Your task to perform on an android device: Play the last video I watched on Youtube Image 0: 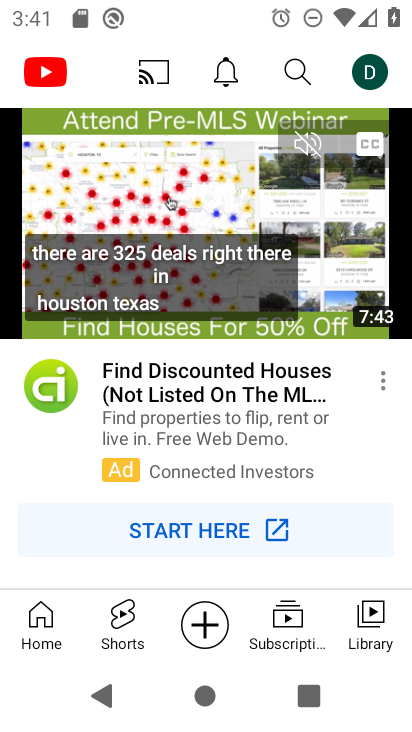
Step 0: press back button
Your task to perform on an android device: Play the last video I watched on Youtube Image 1: 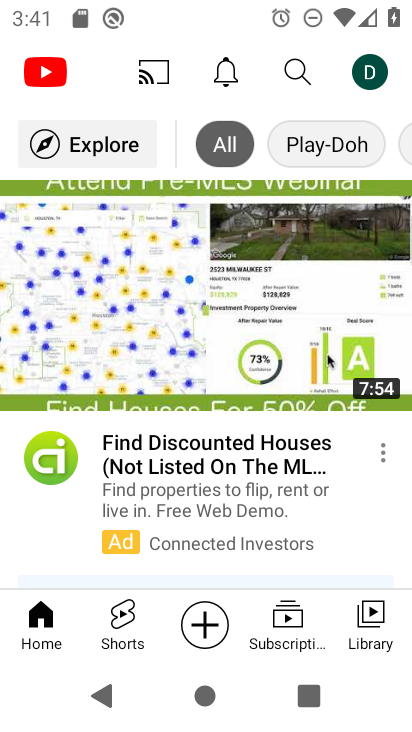
Step 1: press back button
Your task to perform on an android device: Play the last video I watched on Youtube Image 2: 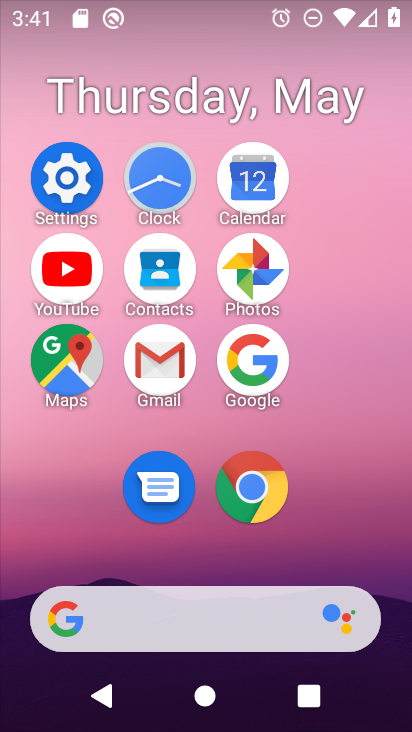
Step 2: click (66, 268)
Your task to perform on an android device: Play the last video I watched on Youtube Image 3: 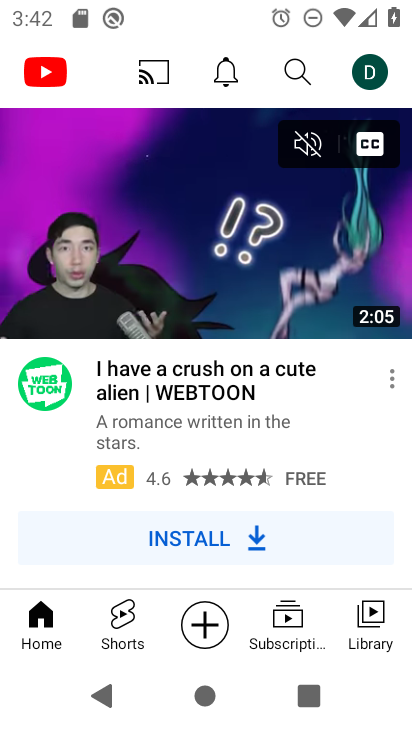
Step 3: click (373, 635)
Your task to perform on an android device: Play the last video I watched on Youtube Image 4: 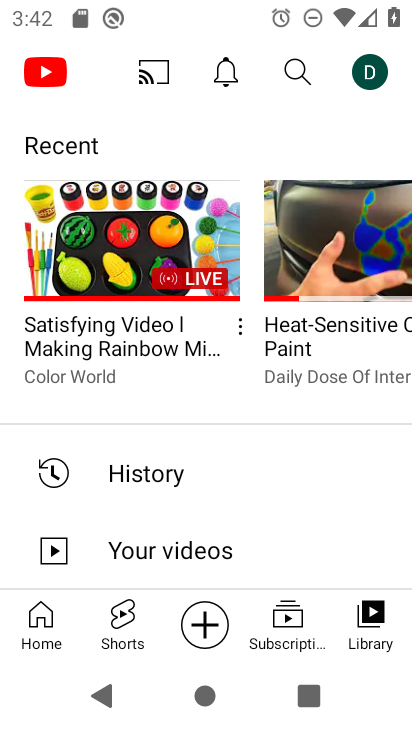
Step 4: click (180, 469)
Your task to perform on an android device: Play the last video I watched on Youtube Image 5: 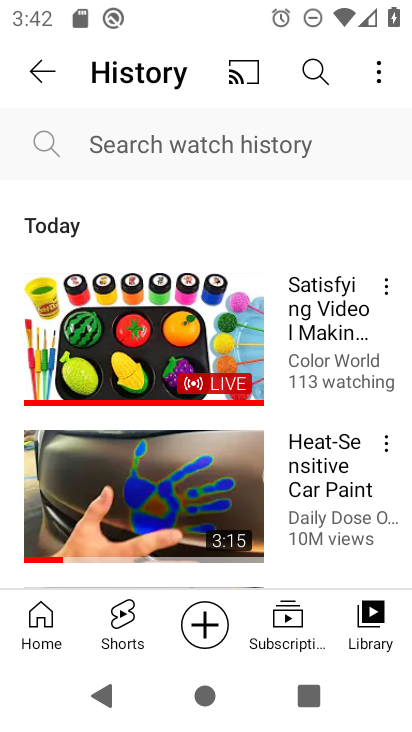
Step 5: task complete